Your task to perform on an android device: open wifi settings Image 0: 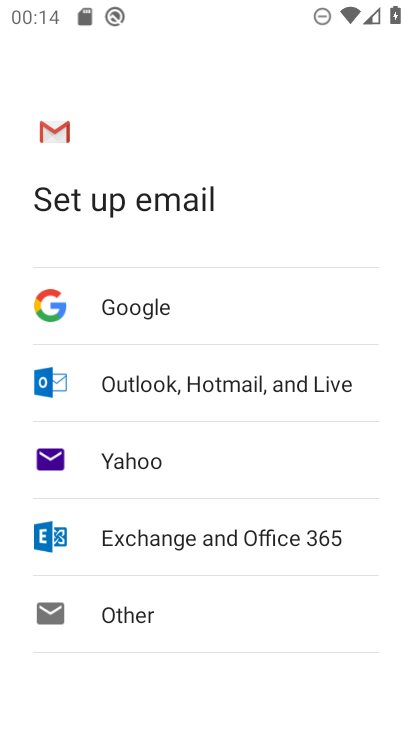
Step 0: press home button
Your task to perform on an android device: open wifi settings Image 1: 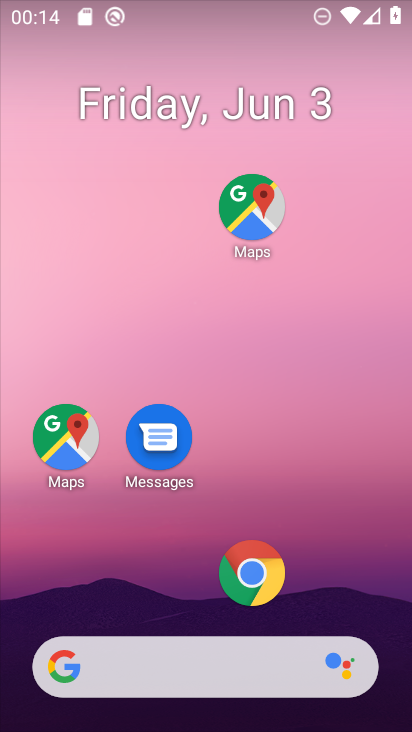
Step 1: drag from (335, 577) to (287, 38)
Your task to perform on an android device: open wifi settings Image 2: 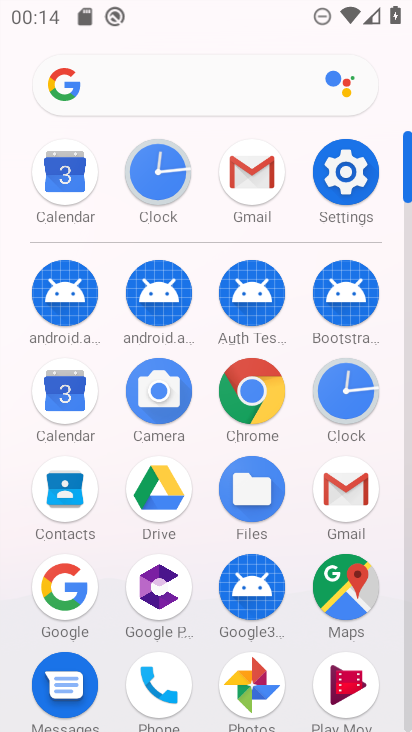
Step 2: click (351, 183)
Your task to perform on an android device: open wifi settings Image 3: 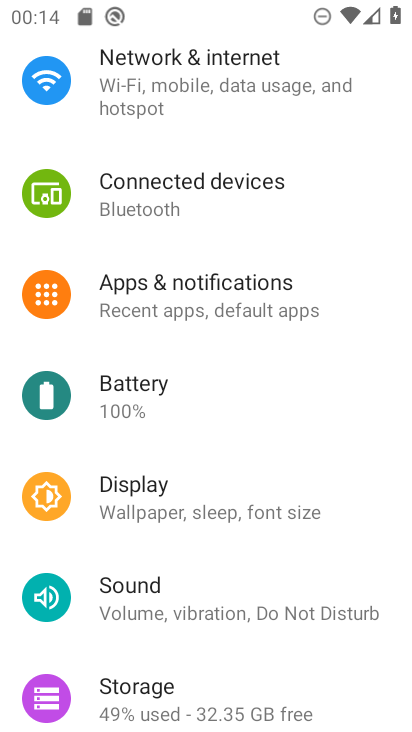
Step 3: drag from (204, 155) to (265, 518)
Your task to perform on an android device: open wifi settings Image 4: 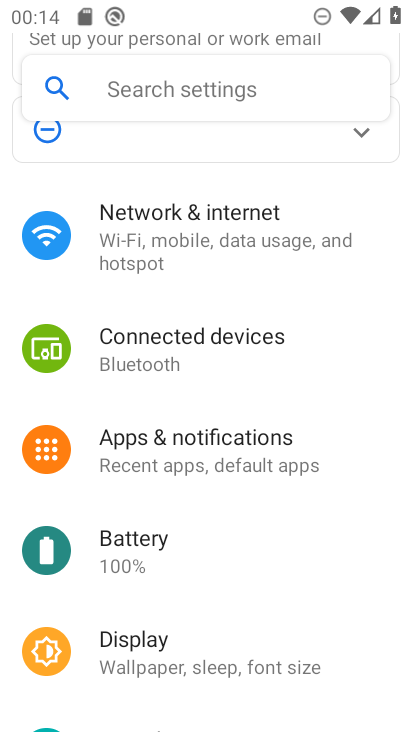
Step 4: click (213, 234)
Your task to perform on an android device: open wifi settings Image 5: 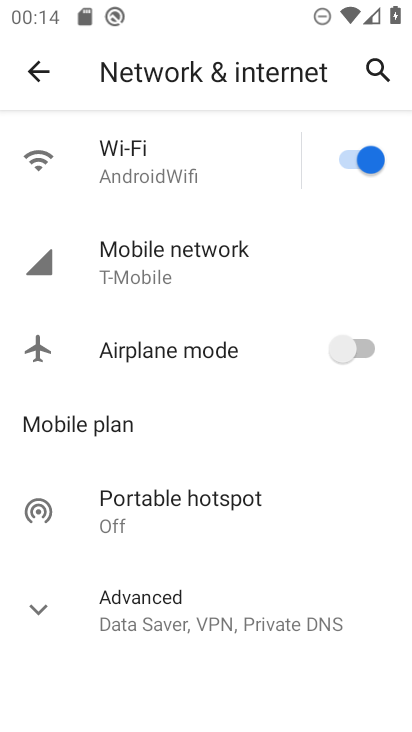
Step 5: click (177, 158)
Your task to perform on an android device: open wifi settings Image 6: 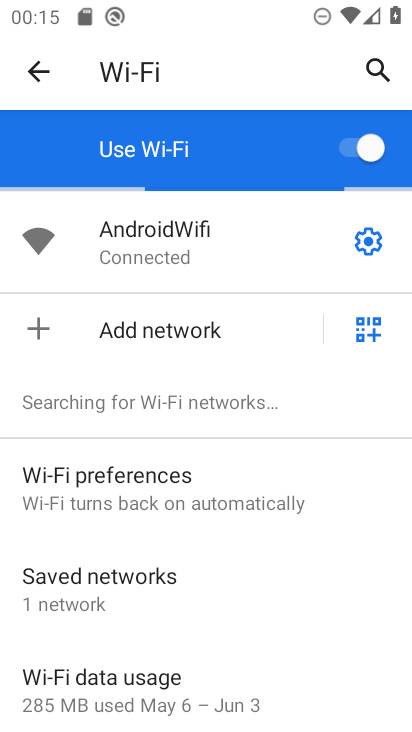
Step 6: task complete